Your task to perform on an android device: uninstall "Gboard" Image 0: 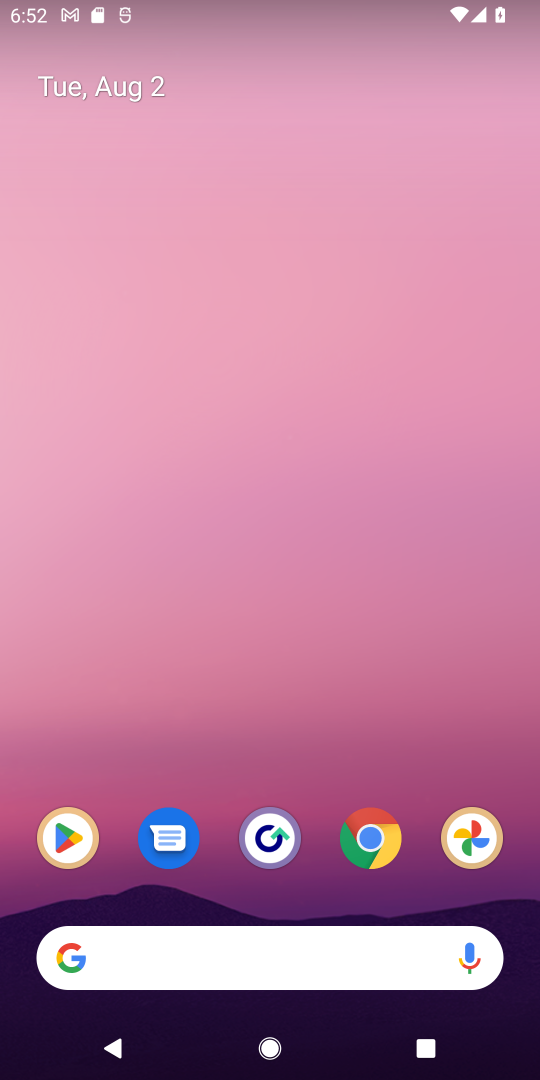
Step 0: click (74, 829)
Your task to perform on an android device: uninstall "Gboard" Image 1: 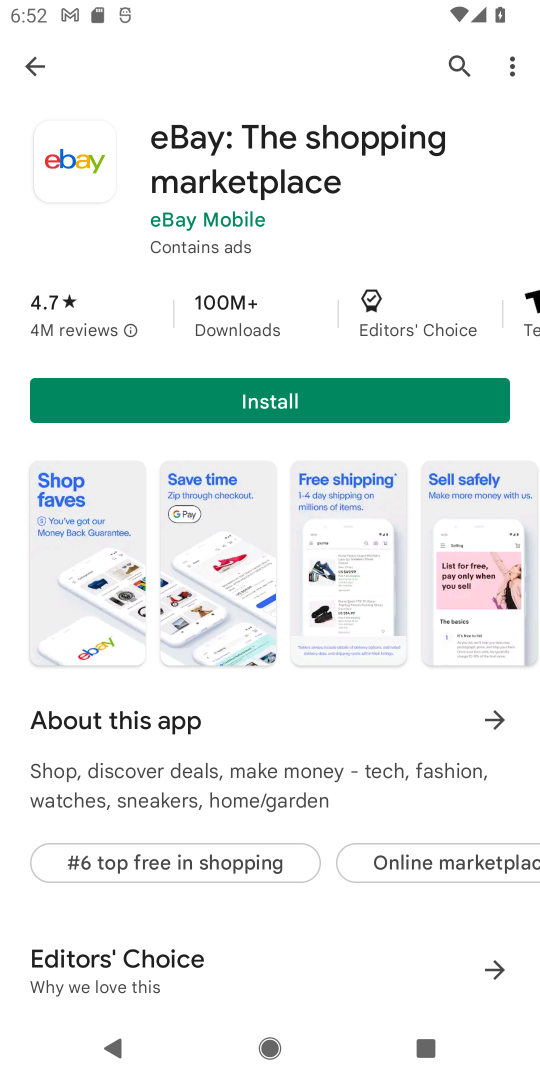
Step 1: click (455, 56)
Your task to perform on an android device: uninstall "Gboard" Image 2: 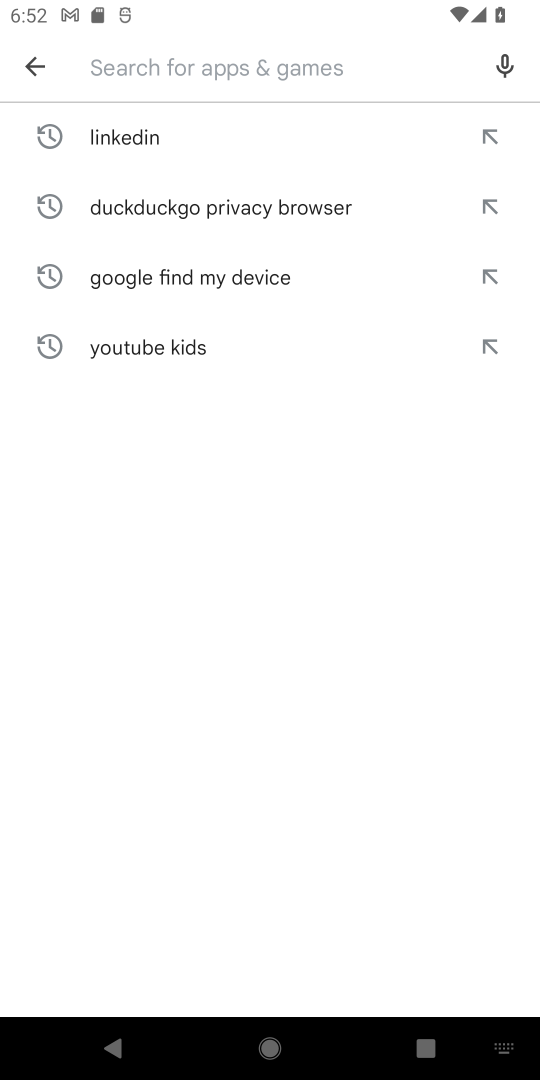
Step 2: type "gboard"
Your task to perform on an android device: uninstall "Gboard" Image 3: 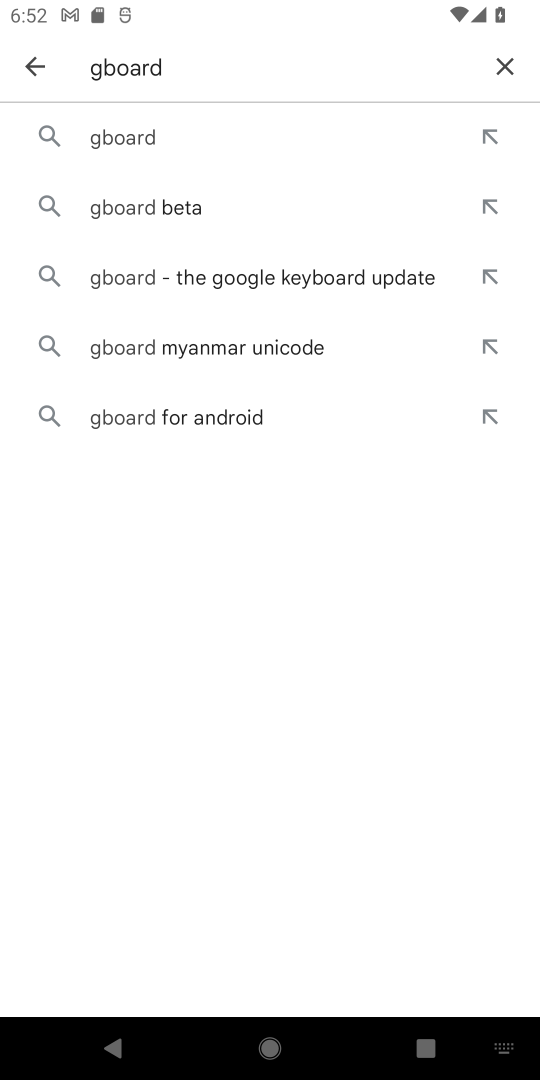
Step 3: click (262, 125)
Your task to perform on an android device: uninstall "Gboard" Image 4: 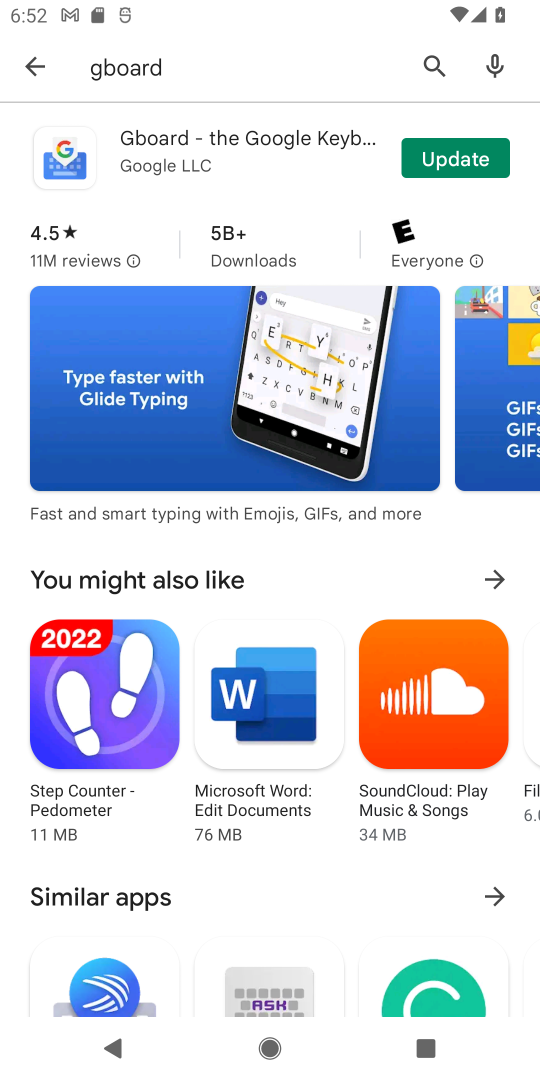
Step 4: click (262, 127)
Your task to perform on an android device: uninstall "Gboard" Image 5: 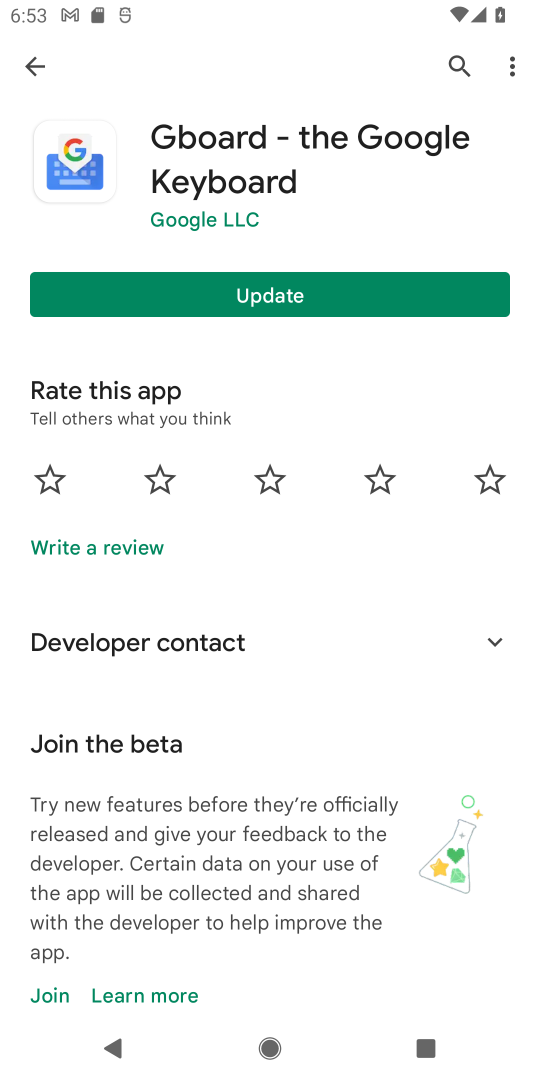
Step 5: task complete